Your task to perform on an android device: Open maps Image 0: 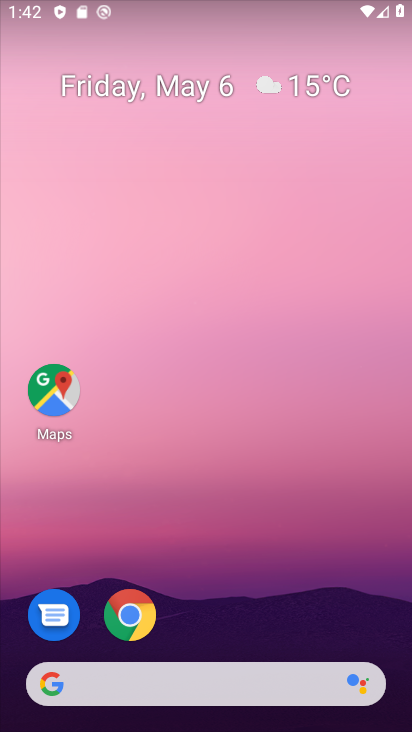
Step 0: click (56, 386)
Your task to perform on an android device: Open maps Image 1: 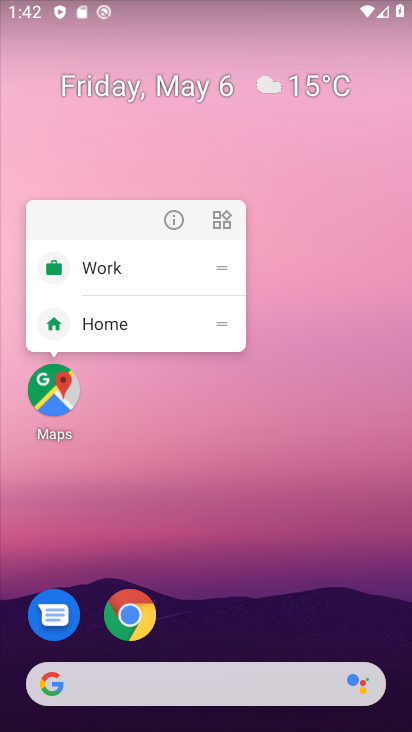
Step 1: click (53, 392)
Your task to perform on an android device: Open maps Image 2: 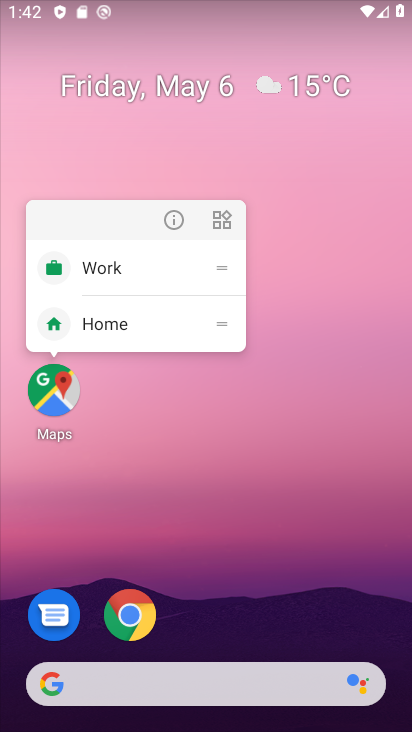
Step 2: click (53, 408)
Your task to perform on an android device: Open maps Image 3: 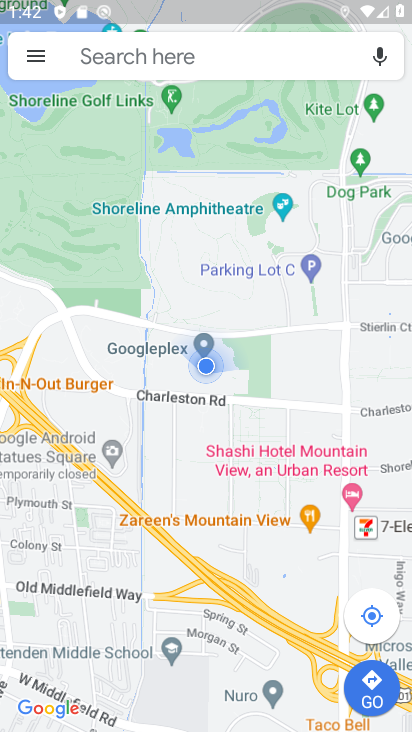
Step 3: task complete